Your task to perform on an android device: Turn on the flashlight Image 0: 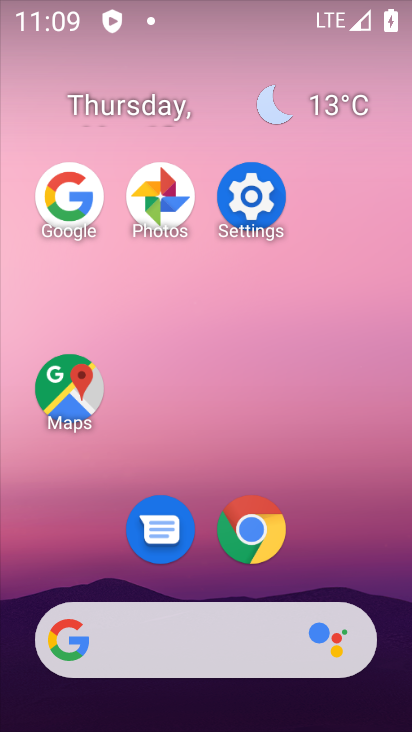
Step 0: drag from (237, 0) to (282, 352)
Your task to perform on an android device: Turn on the flashlight Image 1: 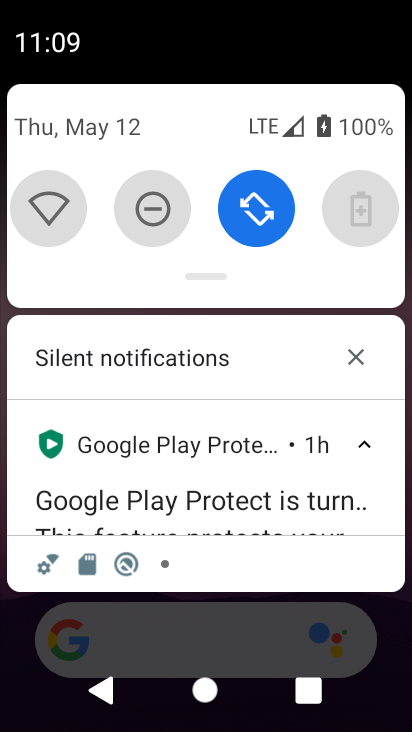
Step 1: task complete